Your task to perform on an android device: What is the news today? Image 0: 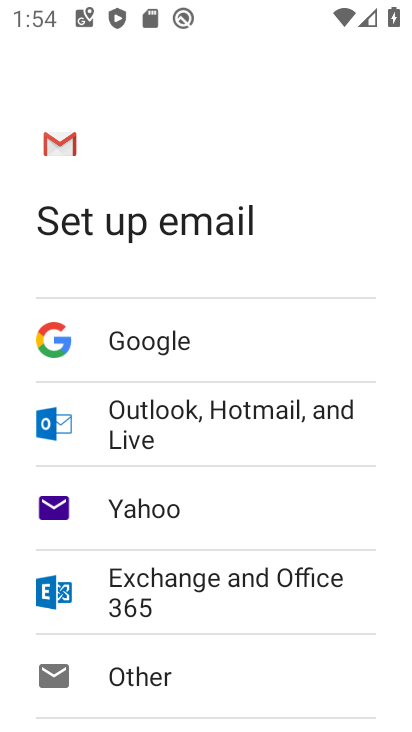
Step 0: press back button
Your task to perform on an android device: What is the news today? Image 1: 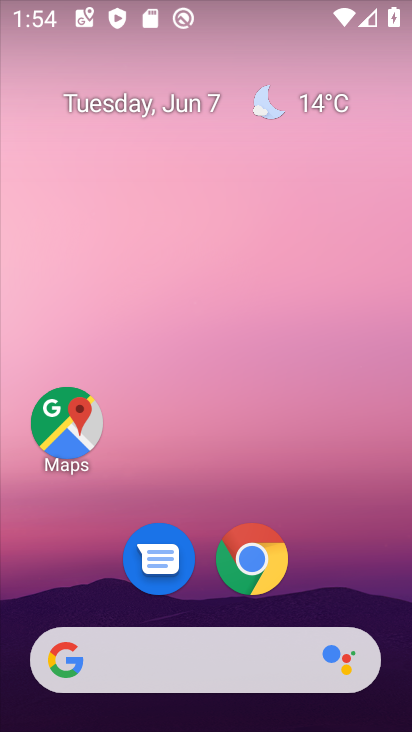
Step 1: drag from (335, 540) to (258, 40)
Your task to perform on an android device: What is the news today? Image 2: 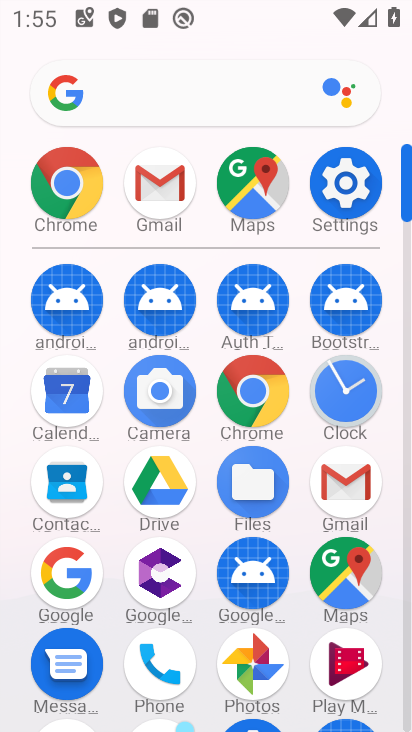
Step 2: click (67, 176)
Your task to perform on an android device: What is the news today? Image 3: 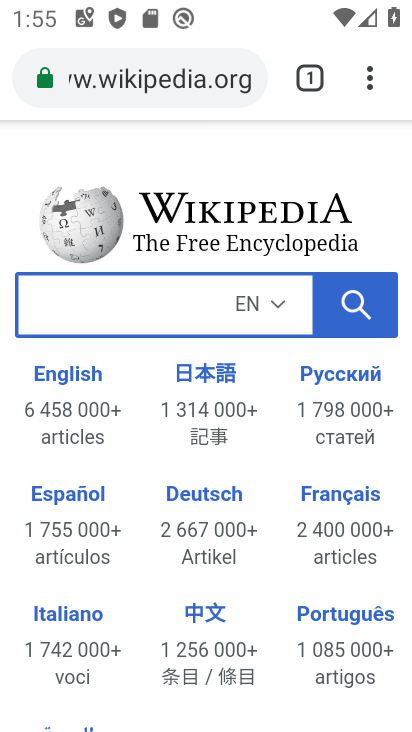
Step 3: click (179, 70)
Your task to perform on an android device: What is the news today? Image 4: 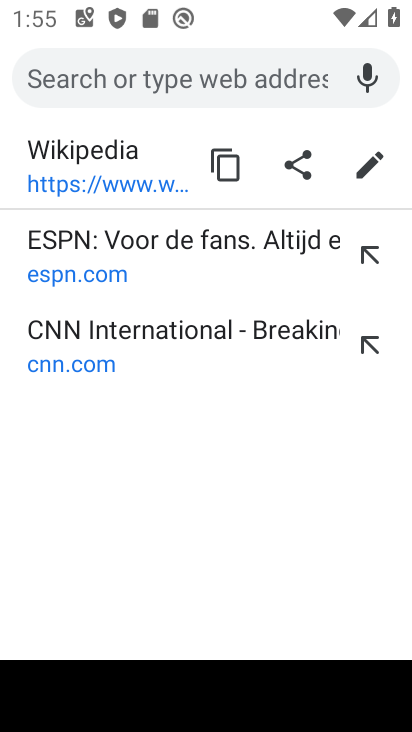
Step 4: type "What is the news today?"
Your task to perform on an android device: What is the news today? Image 5: 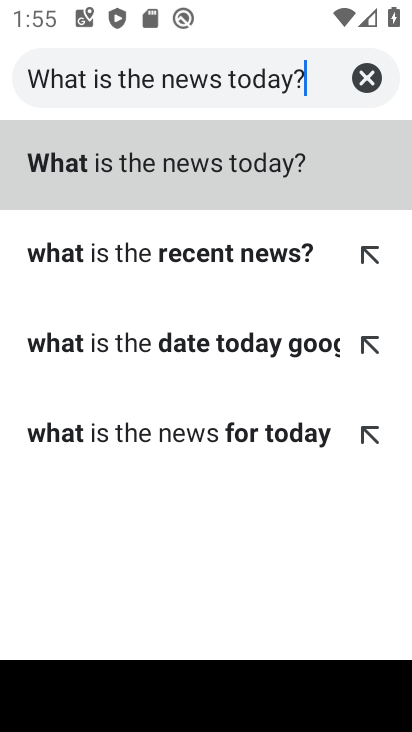
Step 5: type ""
Your task to perform on an android device: What is the news today? Image 6: 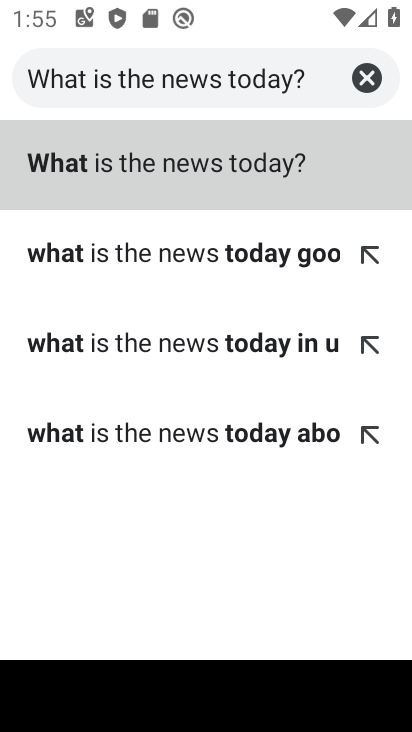
Step 6: click (226, 191)
Your task to perform on an android device: What is the news today? Image 7: 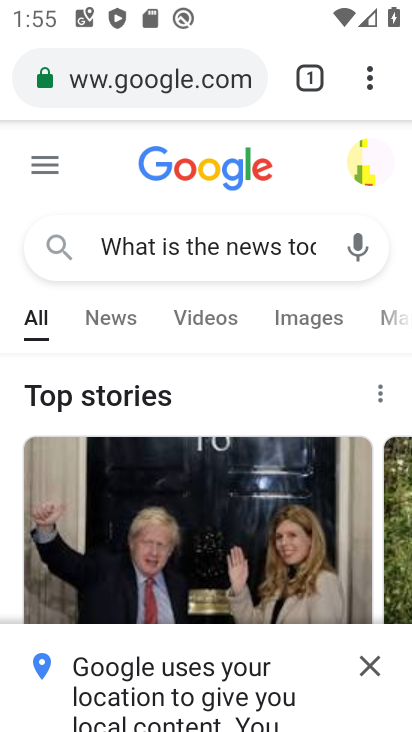
Step 7: click (370, 657)
Your task to perform on an android device: What is the news today? Image 8: 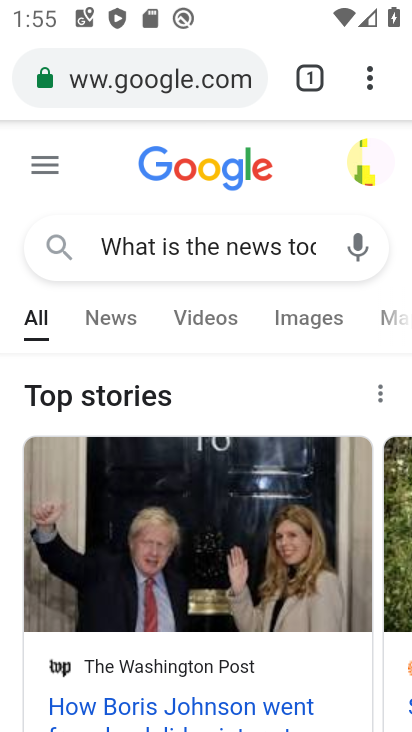
Step 8: task complete